Your task to perform on an android device: change your default location settings in chrome Image 0: 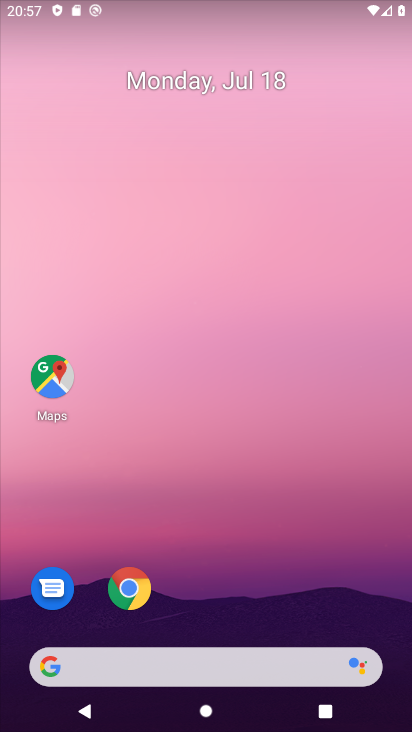
Step 0: press home button
Your task to perform on an android device: change your default location settings in chrome Image 1: 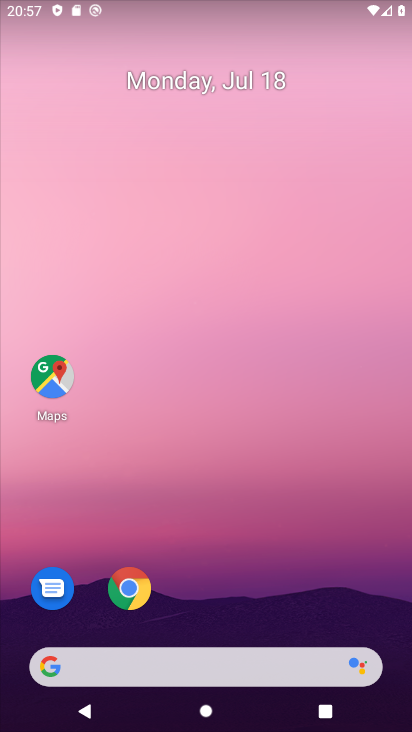
Step 1: click (129, 587)
Your task to perform on an android device: change your default location settings in chrome Image 2: 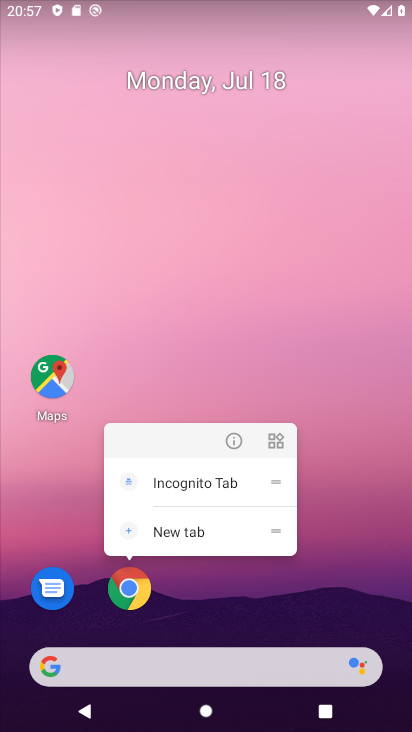
Step 2: click (126, 593)
Your task to perform on an android device: change your default location settings in chrome Image 3: 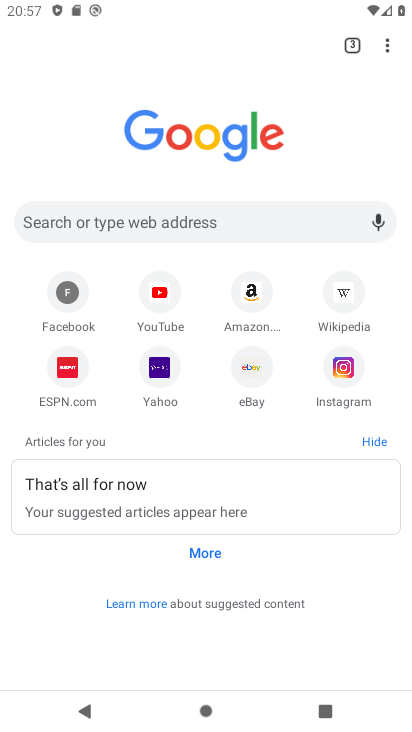
Step 3: drag from (387, 41) to (273, 390)
Your task to perform on an android device: change your default location settings in chrome Image 4: 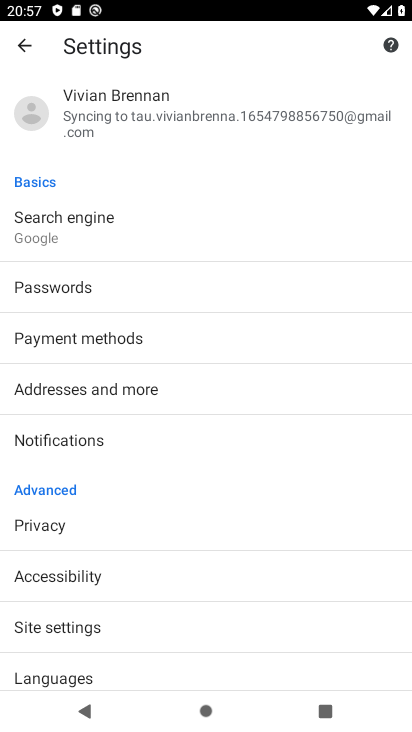
Step 4: click (92, 633)
Your task to perform on an android device: change your default location settings in chrome Image 5: 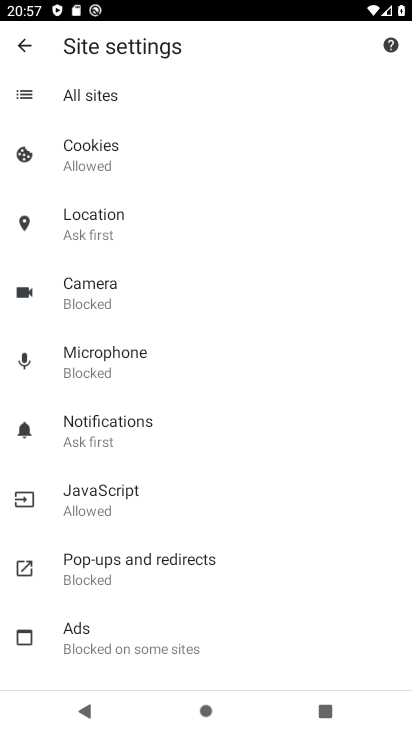
Step 5: click (102, 229)
Your task to perform on an android device: change your default location settings in chrome Image 6: 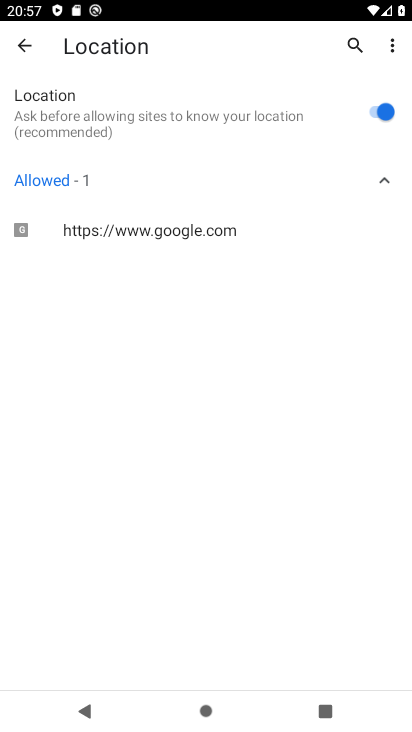
Step 6: click (373, 112)
Your task to perform on an android device: change your default location settings in chrome Image 7: 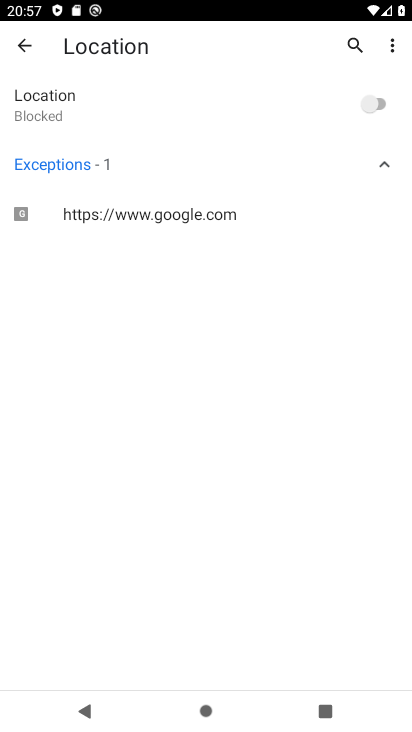
Step 7: task complete